Your task to perform on an android device: turn off translation in the chrome app Image 0: 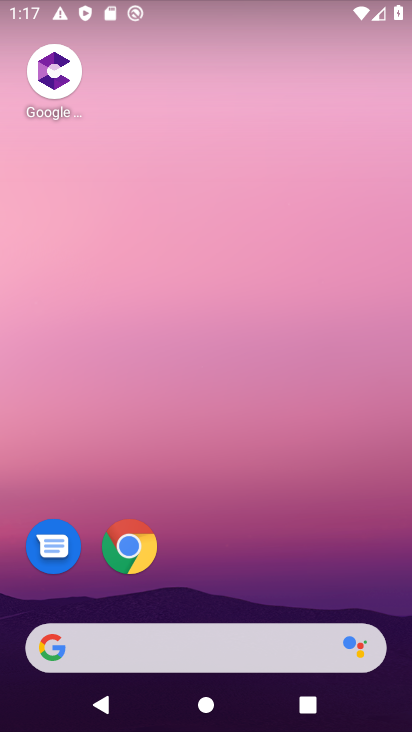
Step 0: drag from (285, 577) to (338, 0)
Your task to perform on an android device: turn off translation in the chrome app Image 1: 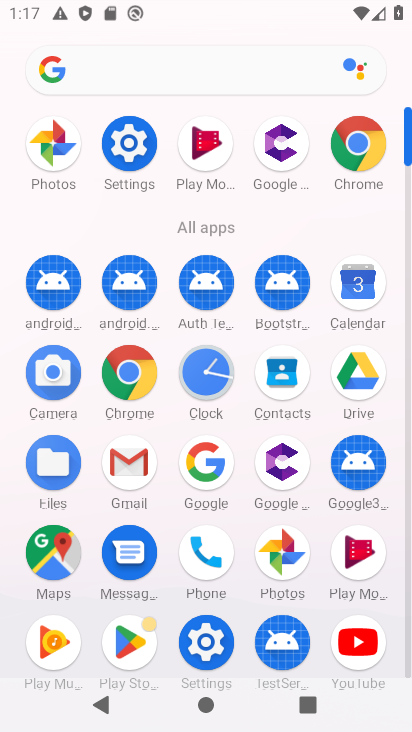
Step 1: click (360, 154)
Your task to perform on an android device: turn off translation in the chrome app Image 2: 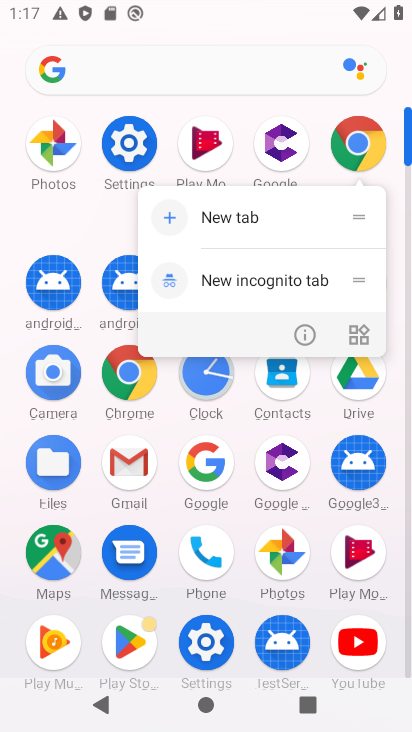
Step 2: click (360, 153)
Your task to perform on an android device: turn off translation in the chrome app Image 3: 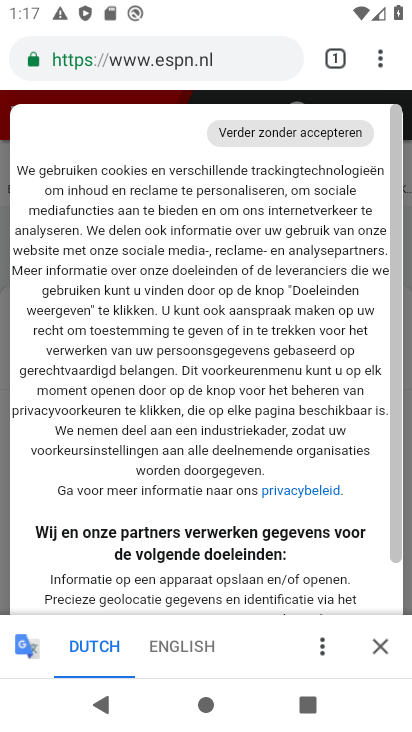
Step 3: drag from (389, 58) to (182, 568)
Your task to perform on an android device: turn off translation in the chrome app Image 4: 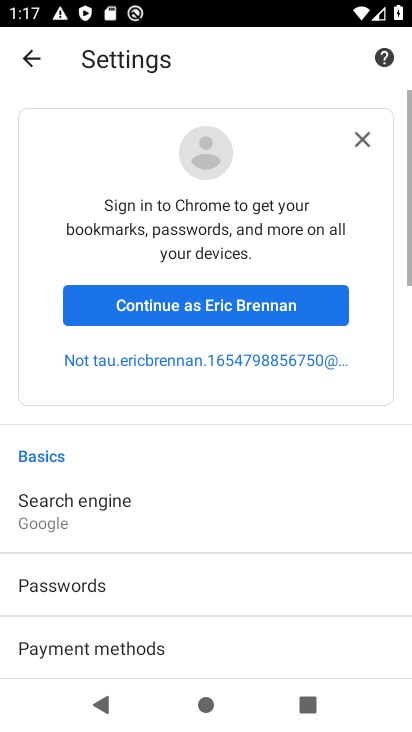
Step 4: drag from (195, 421) to (211, 2)
Your task to perform on an android device: turn off translation in the chrome app Image 5: 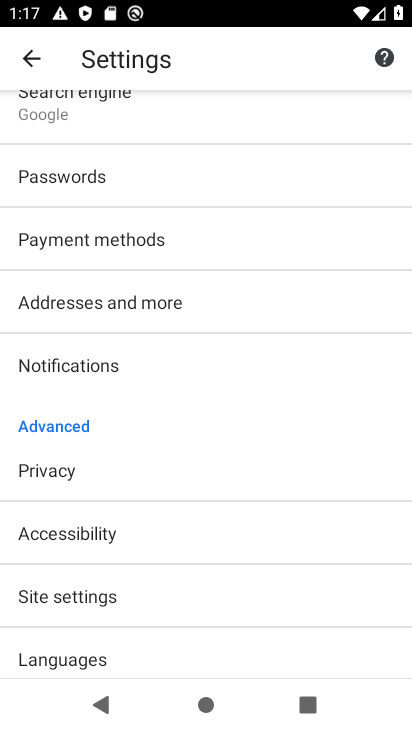
Step 5: click (93, 598)
Your task to perform on an android device: turn off translation in the chrome app Image 6: 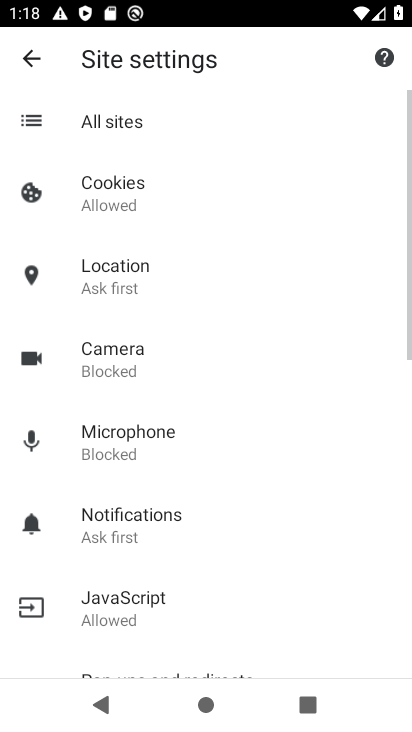
Step 6: click (43, 68)
Your task to perform on an android device: turn off translation in the chrome app Image 7: 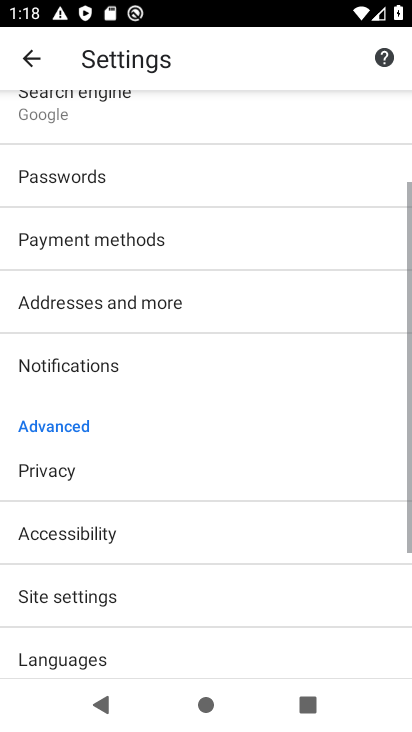
Step 7: drag from (153, 601) to (210, 117)
Your task to perform on an android device: turn off translation in the chrome app Image 8: 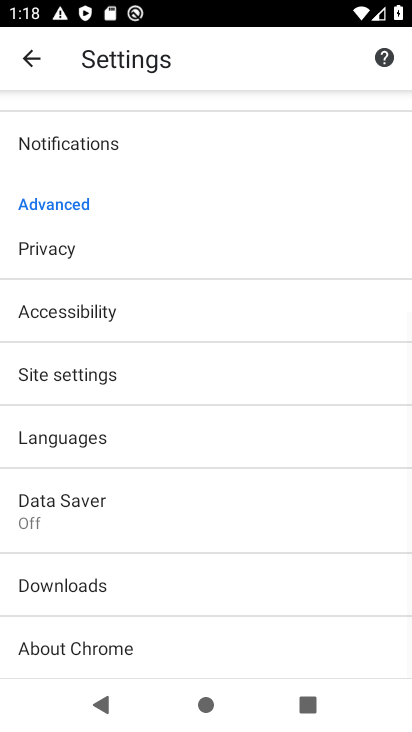
Step 8: click (88, 432)
Your task to perform on an android device: turn off translation in the chrome app Image 9: 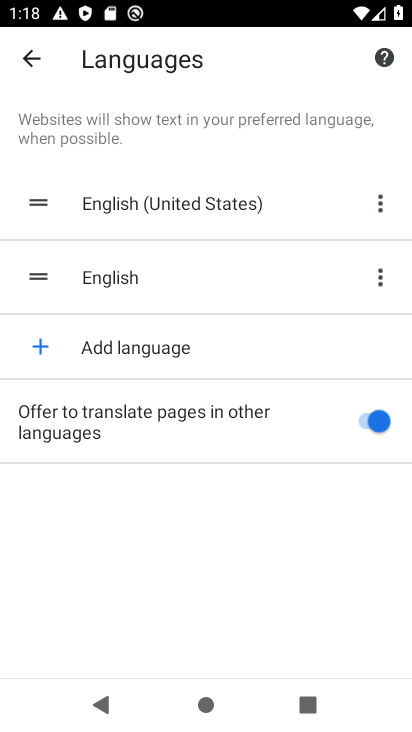
Step 9: click (367, 428)
Your task to perform on an android device: turn off translation in the chrome app Image 10: 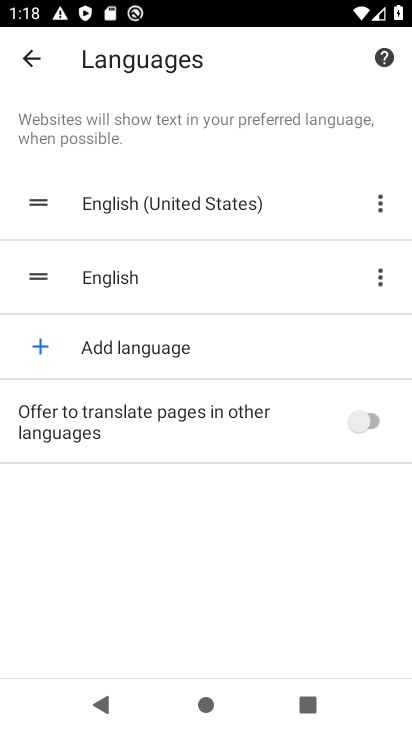
Step 10: task complete